Your task to perform on an android device: Search for sushi restaurants on Maps Image 0: 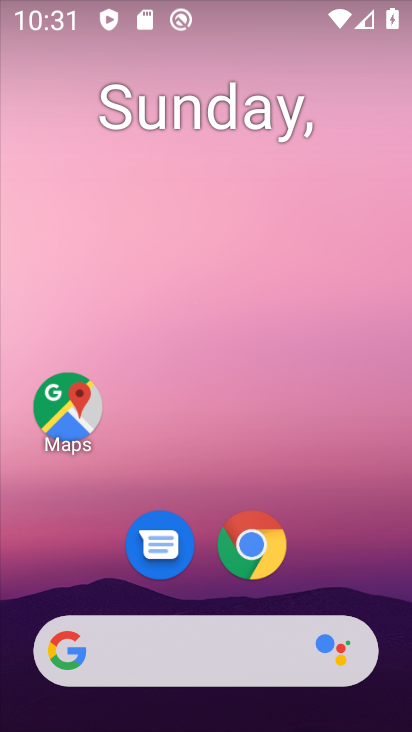
Step 0: click (38, 427)
Your task to perform on an android device: Search for sushi restaurants on Maps Image 1: 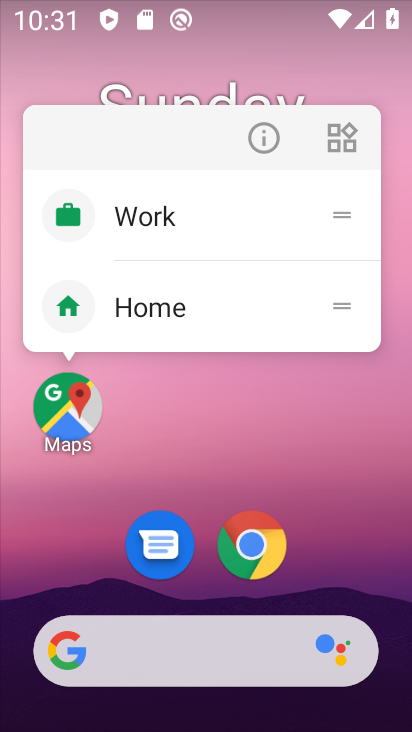
Step 1: click (42, 408)
Your task to perform on an android device: Search for sushi restaurants on Maps Image 2: 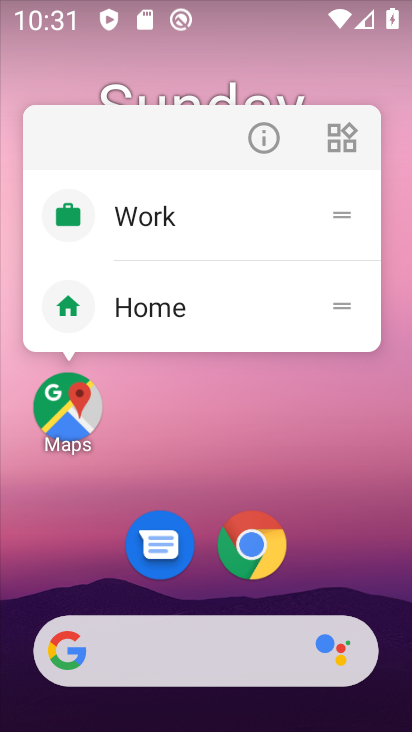
Step 2: click (66, 409)
Your task to perform on an android device: Search for sushi restaurants on Maps Image 3: 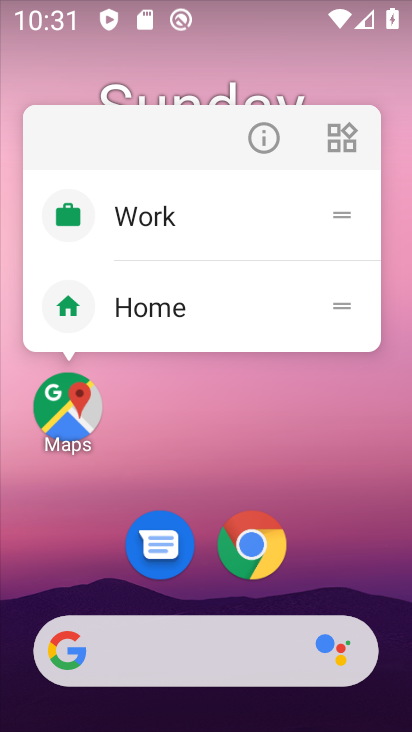
Step 3: click (70, 422)
Your task to perform on an android device: Search for sushi restaurants on Maps Image 4: 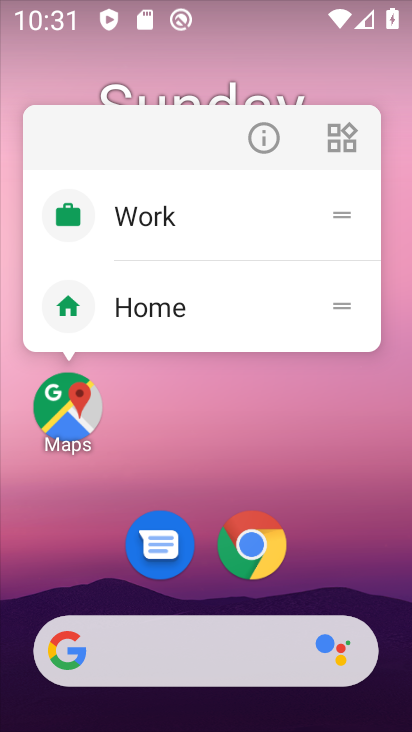
Step 4: click (71, 422)
Your task to perform on an android device: Search for sushi restaurants on Maps Image 5: 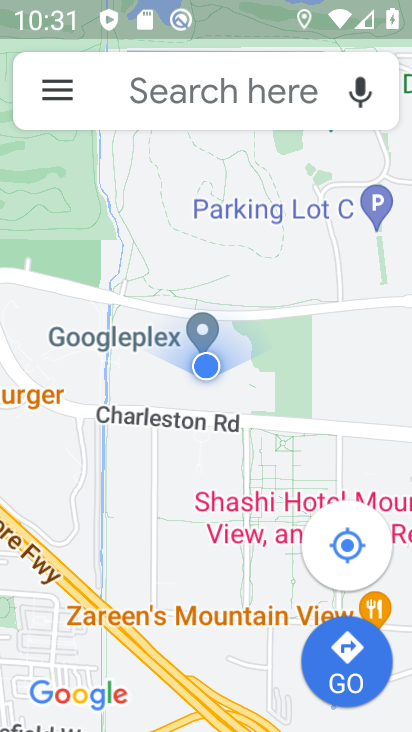
Step 5: click (142, 87)
Your task to perform on an android device: Search for sushi restaurants on Maps Image 6: 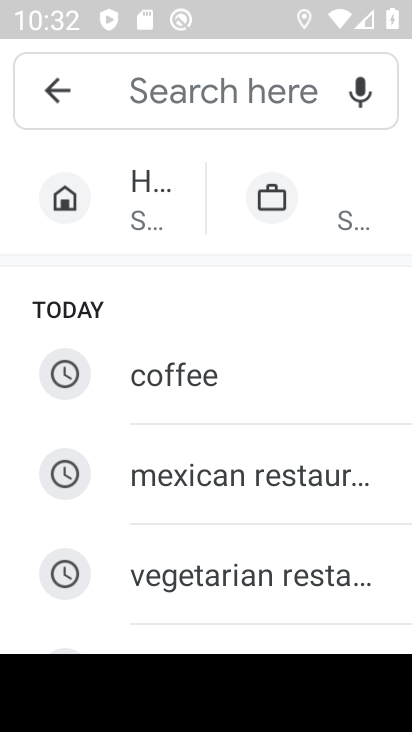
Step 6: type "sushi restaurants"
Your task to perform on an android device: Search for sushi restaurants on Maps Image 7: 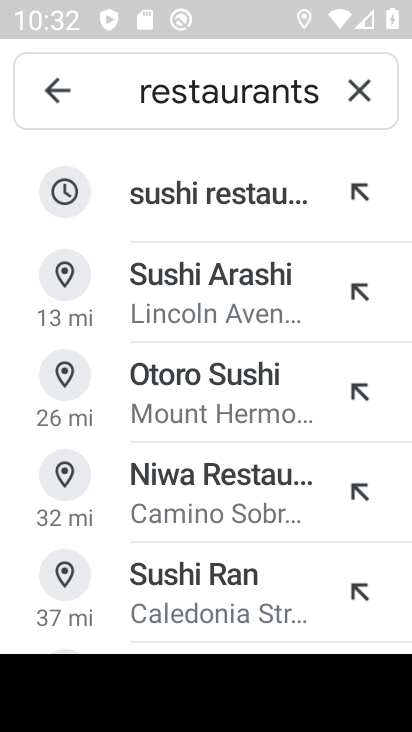
Step 7: click (218, 216)
Your task to perform on an android device: Search for sushi restaurants on Maps Image 8: 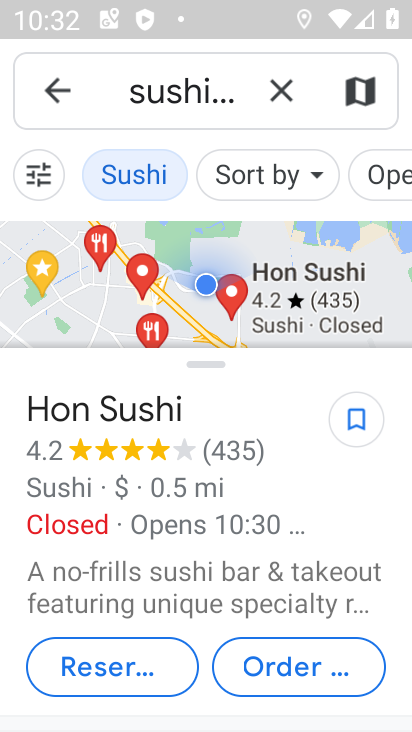
Step 8: task complete